Your task to perform on an android device: visit the assistant section in the google photos Image 0: 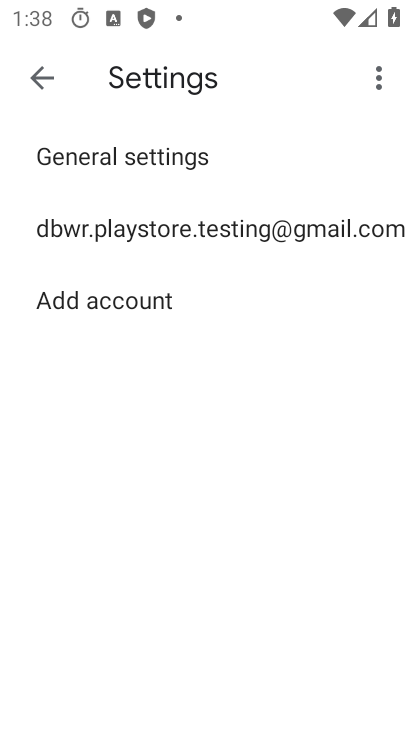
Step 0: press home button
Your task to perform on an android device: visit the assistant section in the google photos Image 1: 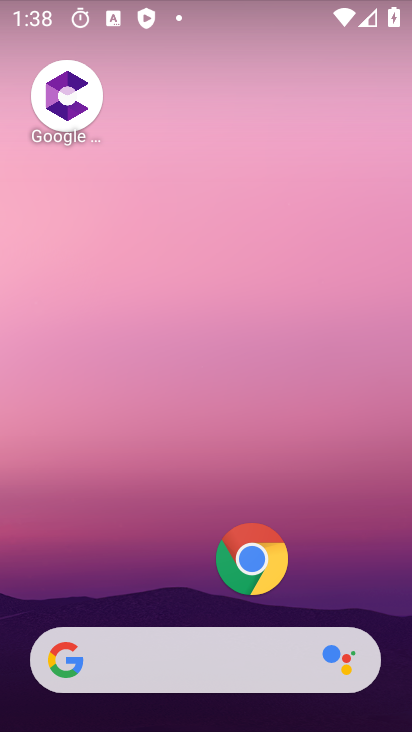
Step 1: drag from (192, 622) to (253, 122)
Your task to perform on an android device: visit the assistant section in the google photos Image 2: 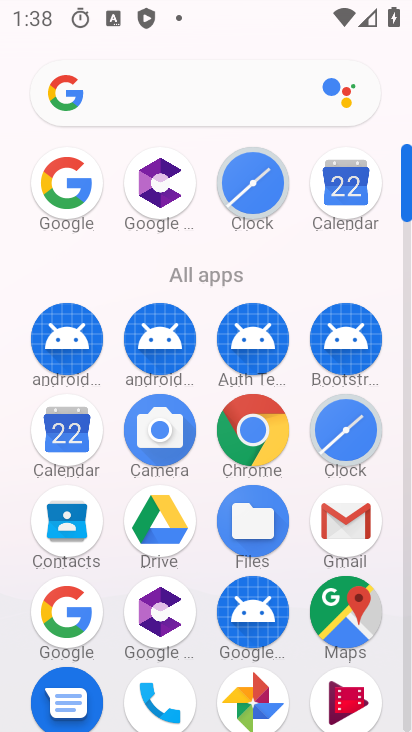
Step 2: click (251, 700)
Your task to perform on an android device: visit the assistant section in the google photos Image 3: 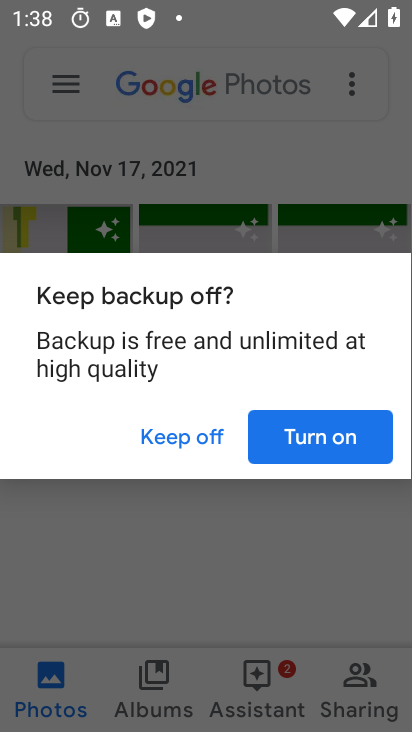
Step 3: click (309, 436)
Your task to perform on an android device: visit the assistant section in the google photos Image 4: 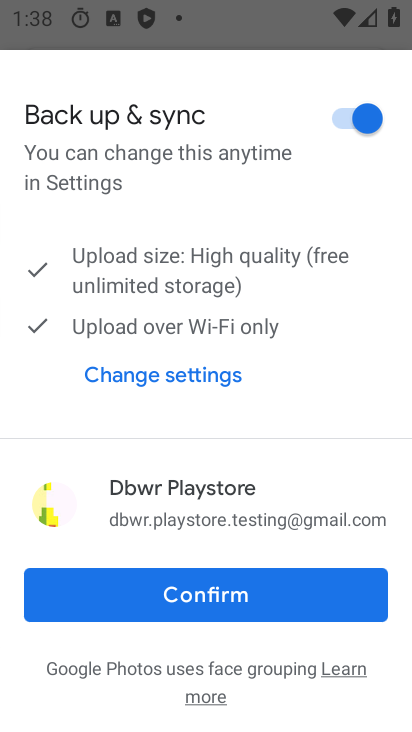
Step 4: click (205, 594)
Your task to perform on an android device: visit the assistant section in the google photos Image 5: 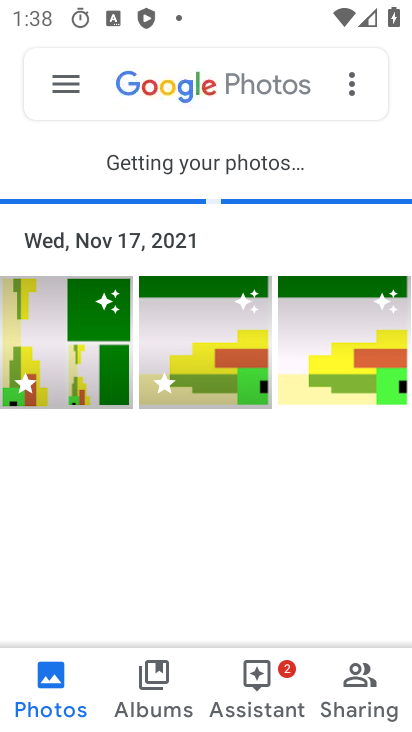
Step 5: click (257, 668)
Your task to perform on an android device: visit the assistant section in the google photos Image 6: 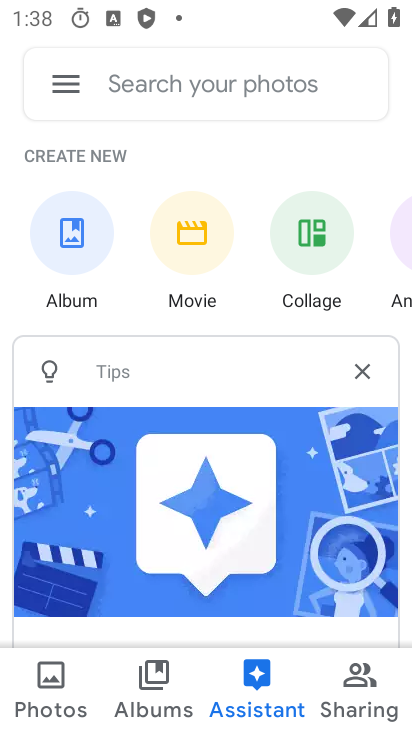
Step 6: task complete